Your task to perform on an android device: Is it going to rain today? Image 0: 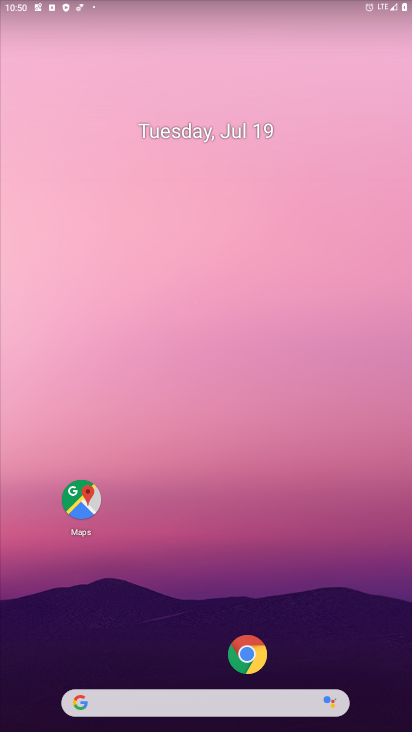
Step 0: click (130, 704)
Your task to perform on an android device: Is it going to rain today? Image 1: 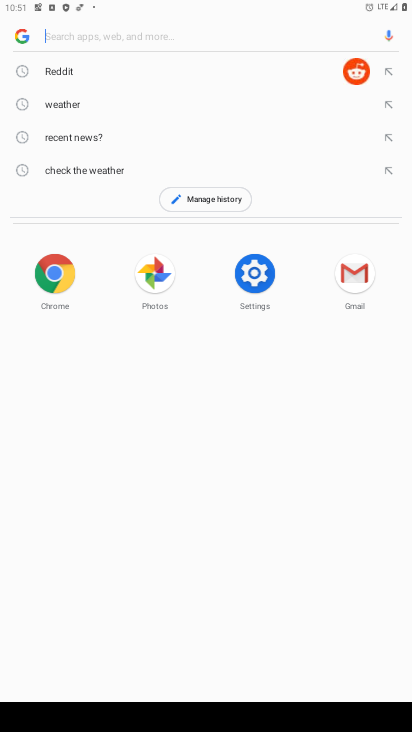
Step 1: click (66, 98)
Your task to perform on an android device: Is it going to rain today? Image 2: 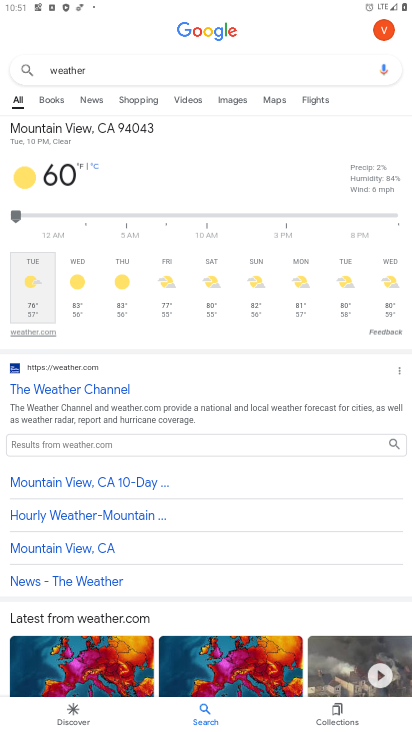
Step 2: task complete